Your task to perform on an android device: Go to settings Image 0: 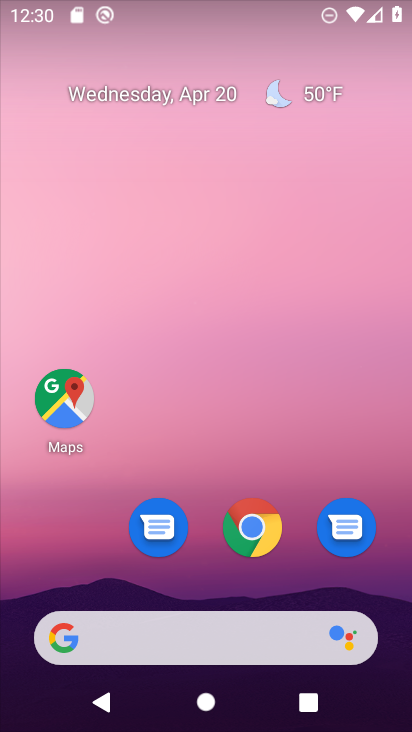
Step 0: drag from (403, 485) to (387, 79)
Your task to perform on an android device: Go to settings Image 1: 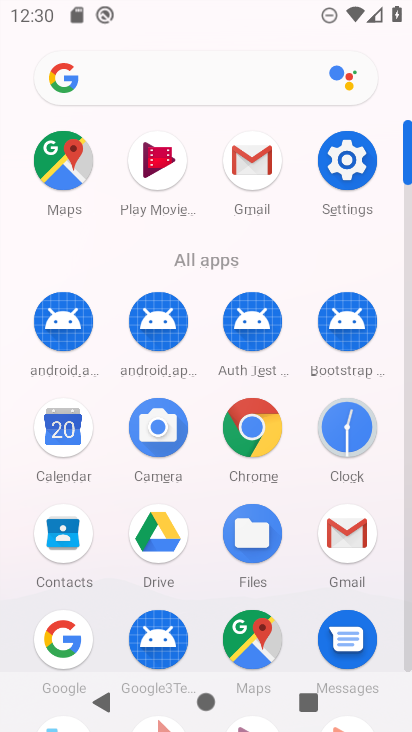
Step 1: click (347, 166)
Your task to perform on an android device: Go to settings Image 2: 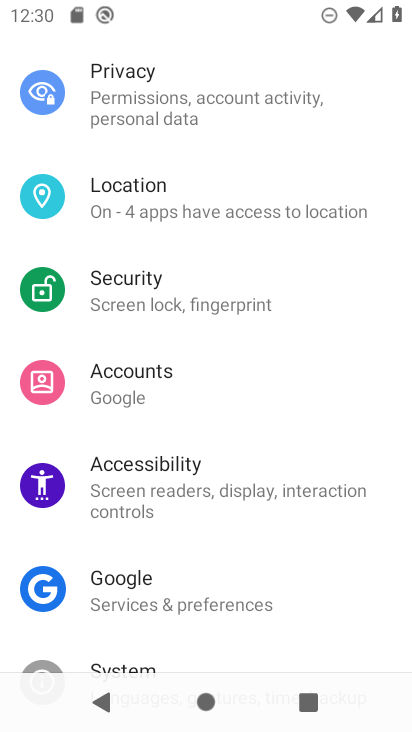
Step 2: task complete